Your task to perform on an android device: Open sound settings Image 0: 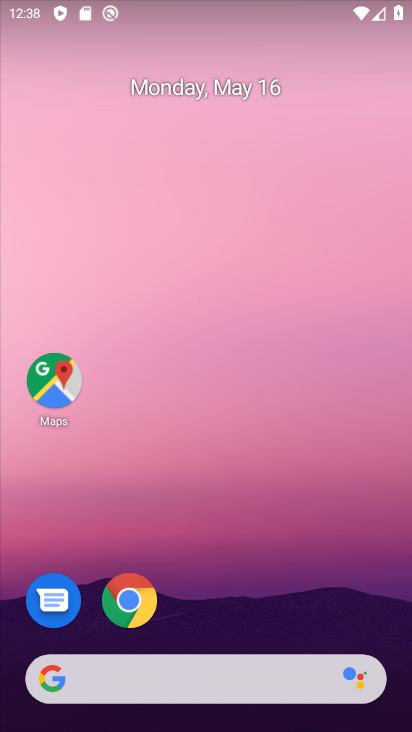
Step 0: drag from (357, 600) to (373, 94)
Your task to perform on an android device: Open sound settings Image 1: 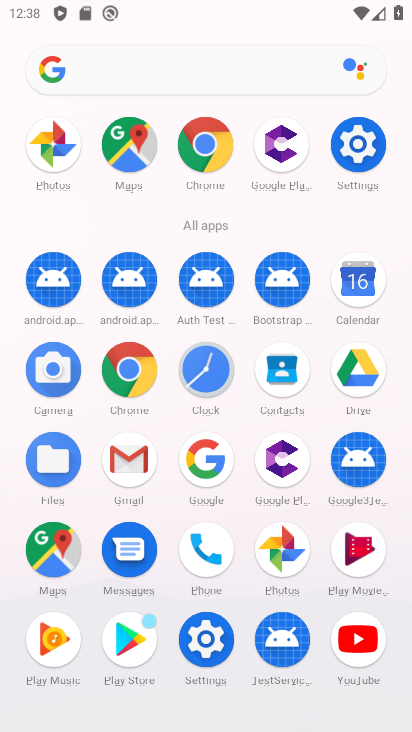
Step 1: click (360, 165)
Your task to perform on an android device: Open sound settings Image 2: 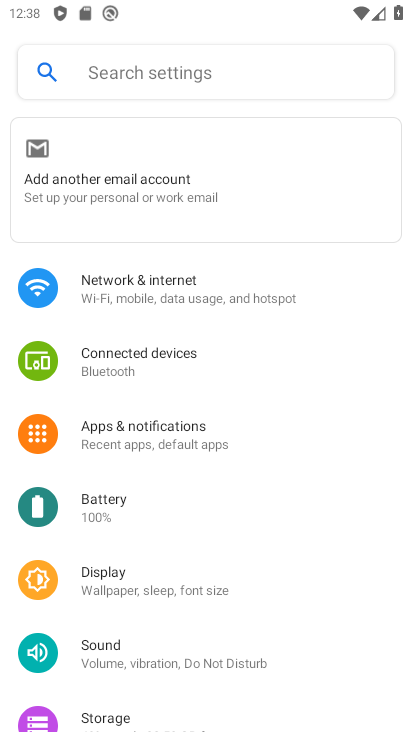
Step 2: drag from (340, 615) to (361, 399)
Your task to perform on an android device: Open sound settings Image 3: 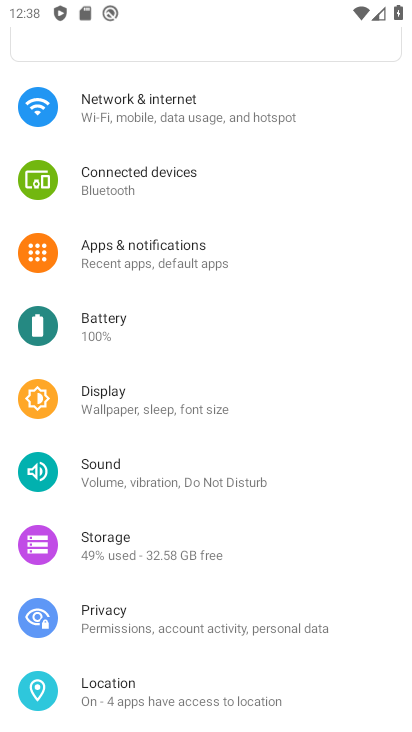
Step 3: drag from (358, 629) to (357, 446)
Your task to perform on an android device: Open sound settings Image 4: 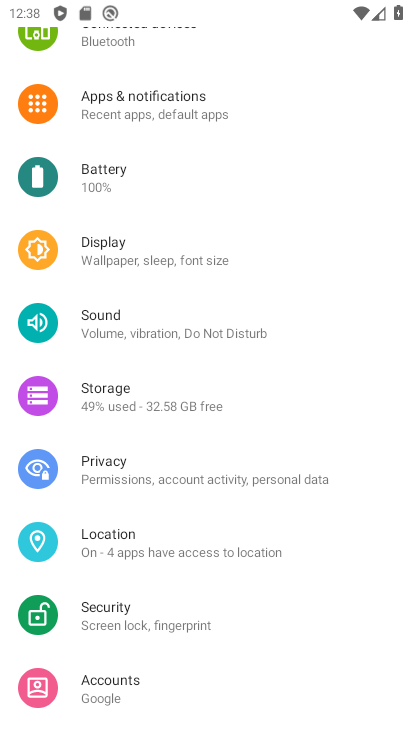
Step 4: drag from (345, 634) to (356, 456)
Your task to perform on an android device: Open sound settings Image 5: 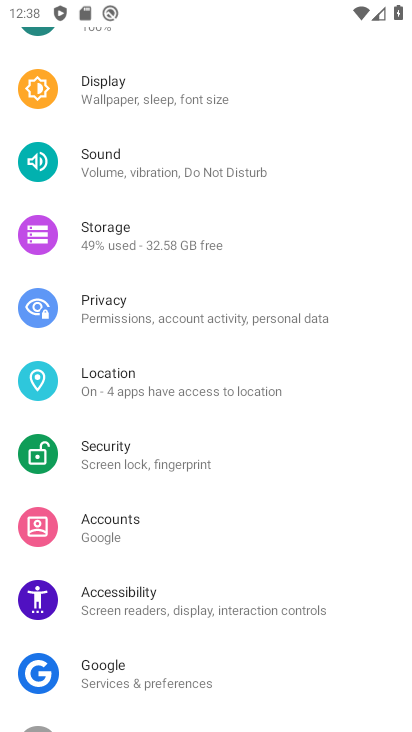
Step 5: drag from (347, 654) to (354, 502)
Your task to perform on an android device: Open sound settings Image 6: 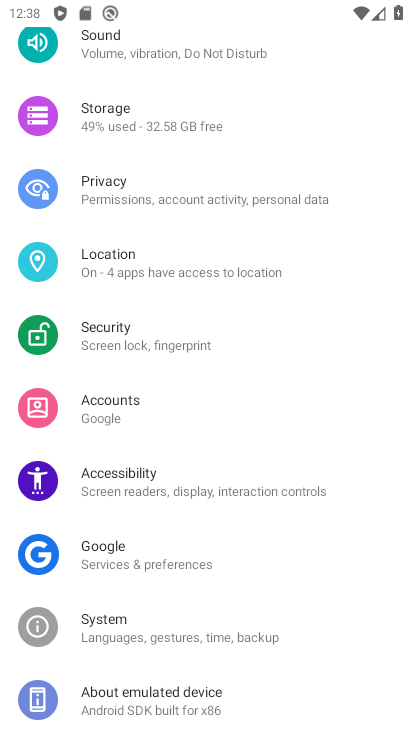
Step 6: drag from (358, 319) to (358, 474)
Your task to perform on an android device: Open sound settings Image 7: 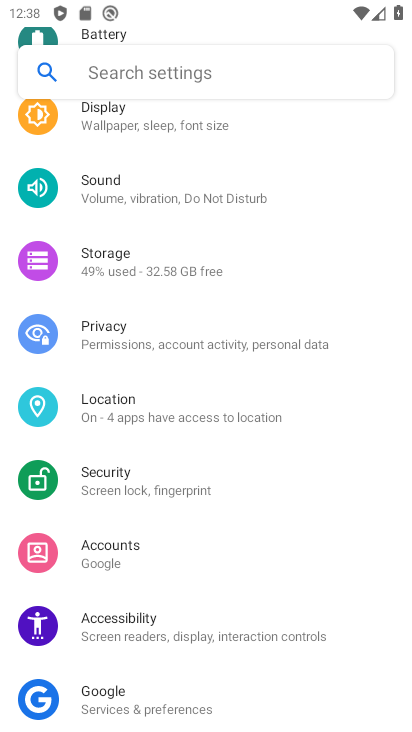
Step 7: drag from (343, 284) to (342, 394)
Your task to perform on an android device: Open sound settings Image 8: 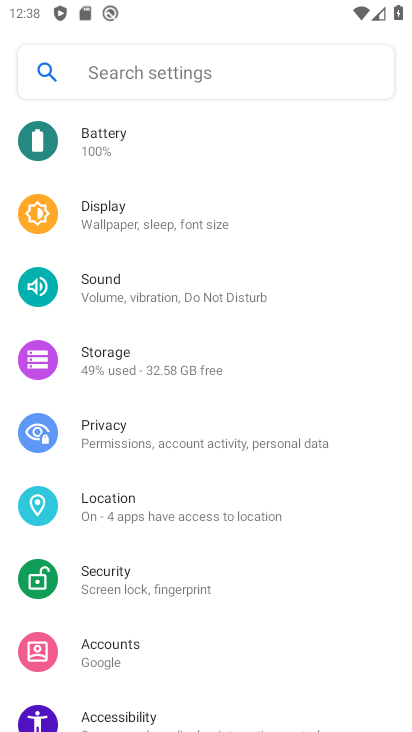
Step 8: click (264, 289)
Your task to perform on an android device: Open sound settings Image 9: 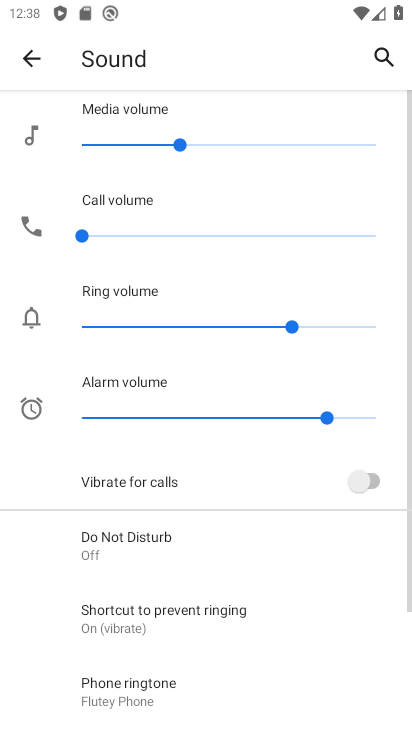
Step 9: task complete